Your task to perform on an android device: View the shopping cart on target.com. Add "acer nitro" to the cart on target.com, then select checkout. Image 0: 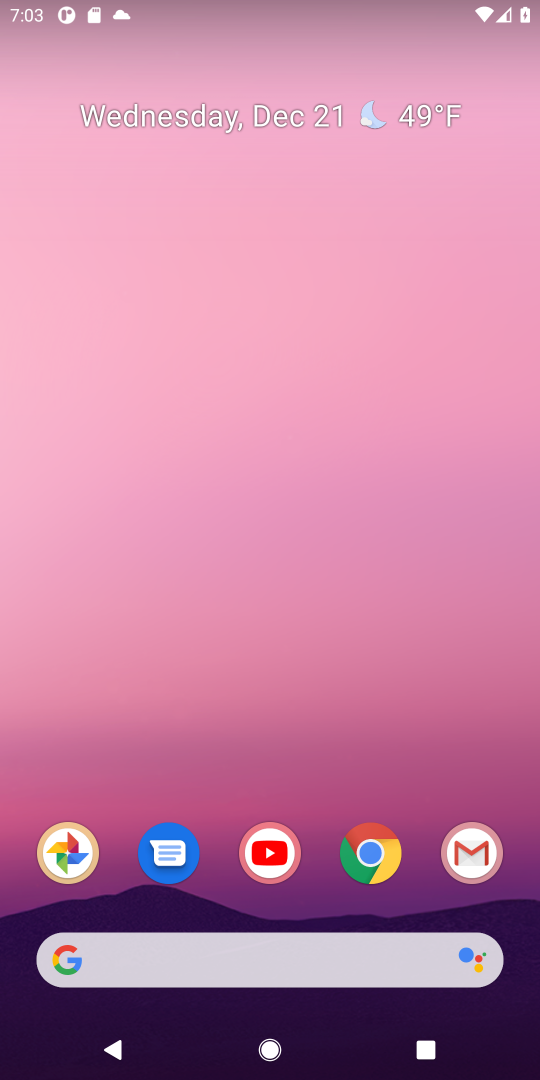
Step 0: click (378, 835)
Your task to perform on an android device: View the shopping cart on target.com. Add "acer nitro" to the cart on target.com, then select checkout. Image 1: 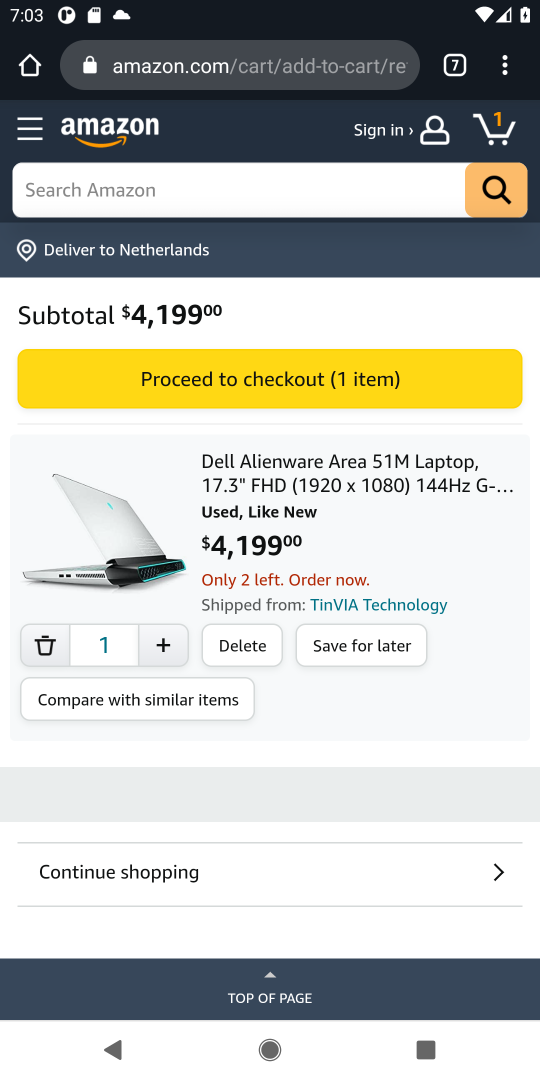
Step 1: click (458, 55)
Your task to perform on an android device: View the shopping cart on target.com. Add "acer nitro" to the cart on target.com, then select checkout. Image 2: 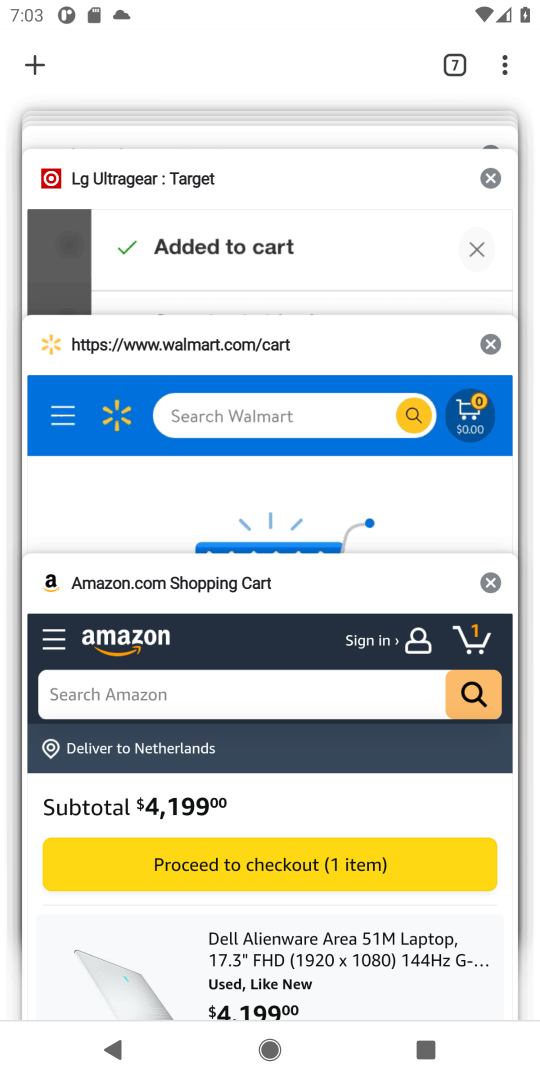
Step 2: click (354, 221)
Your task to perform on an android device: View the shopping cart on target.com. Add "acer nitro" to the cart on target.com, then select checkout. Image 3: 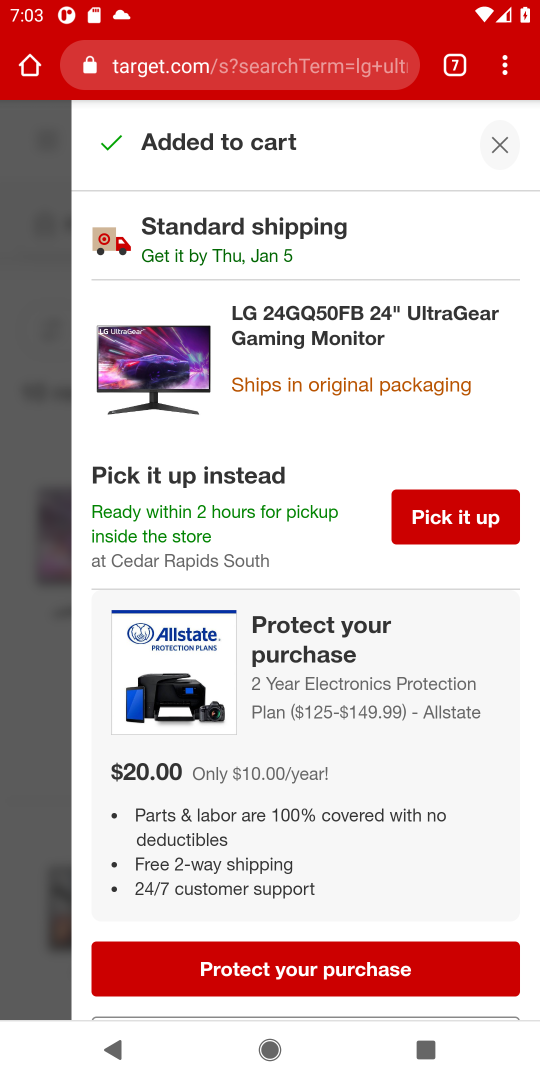
Step 3: click (501, 150)
Your task to perform on an android device: View the shopping cart on target.com. Add "acer nitro" to the cart on target.com, then select checkout. Image 4: 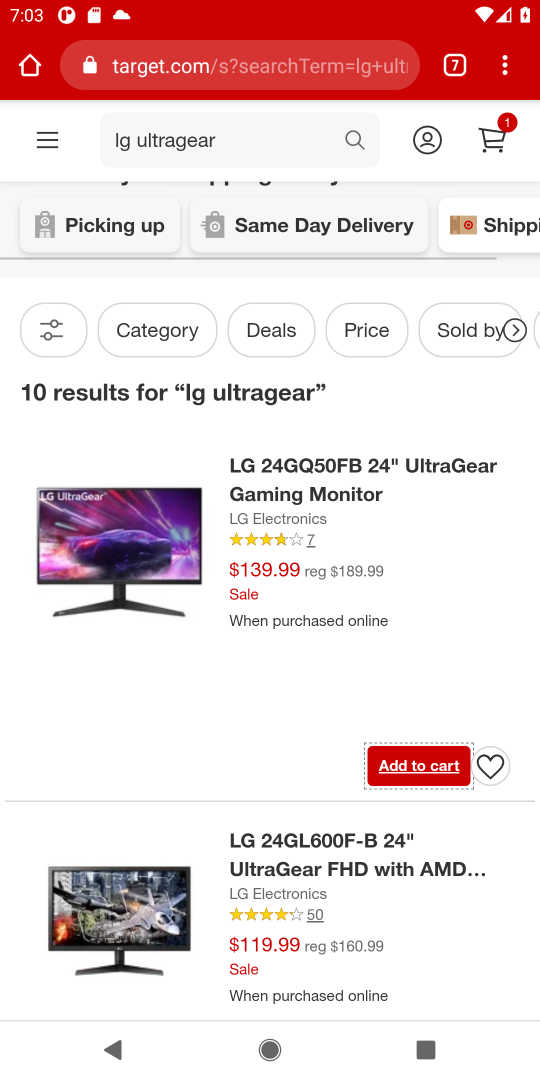
Step 4: click (217, 144)
Your task to perform on an android device: View the shopping cart on target.com. Add "acer nitro" to the cart on target.com, then select checkout. Image 5: 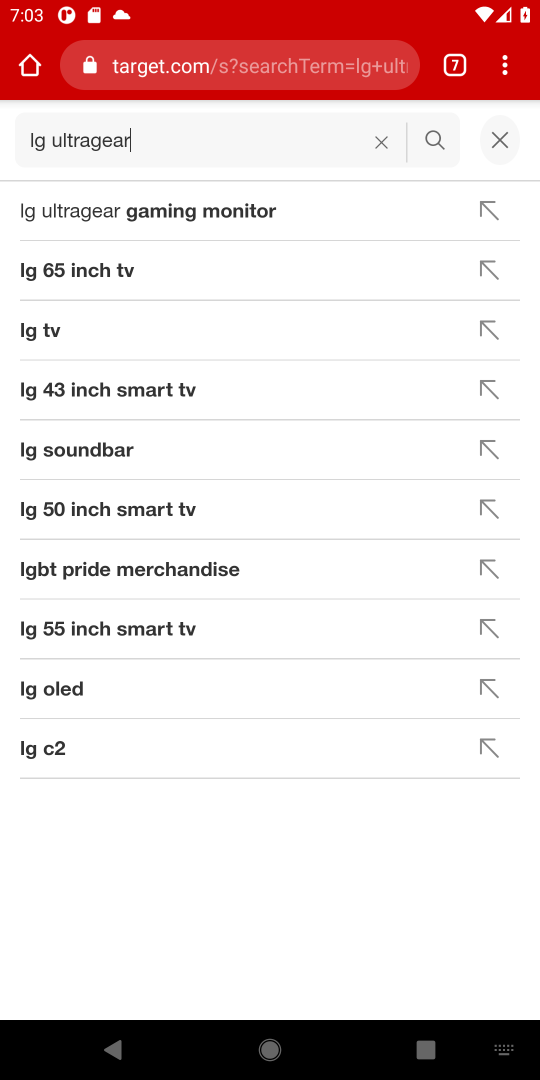
Step 5: click (387, 142)
Your task to perform on an android device: View the shopping cart on target.com. Add "acer nitro" to the cart on target.com, then select checkout. Image 6: 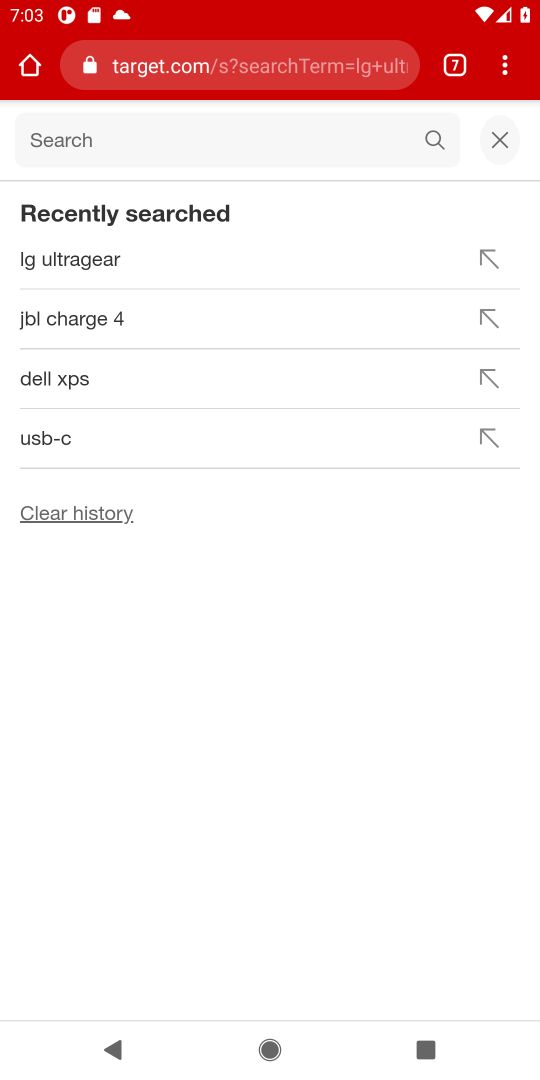
Step 6: type "acer nitro"
Your task to perform on an android device: View the shopping cart on target.com. Add "acer nitro" to the cart on target.com, then select checkout. Image 7: 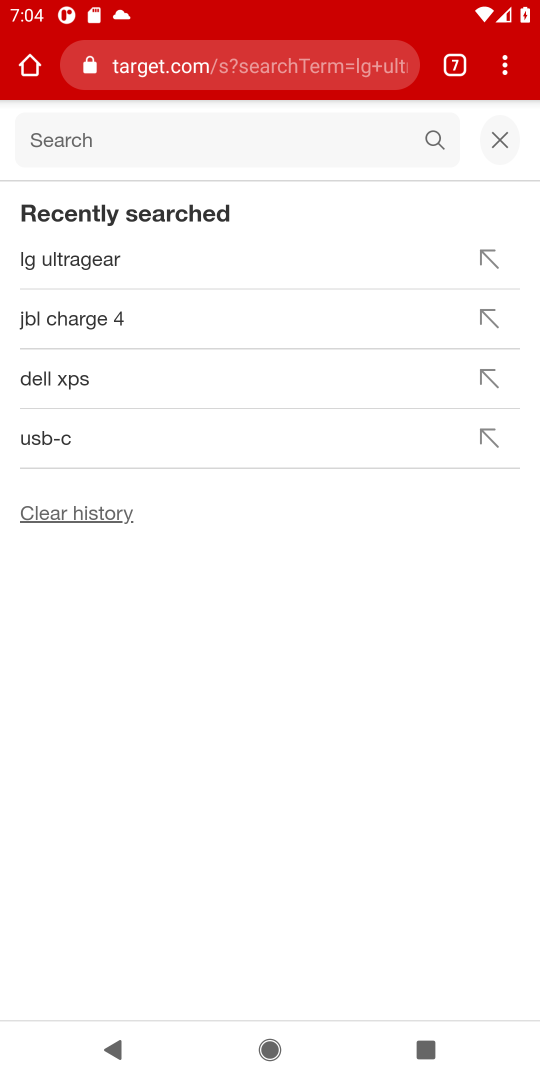
Step 7: click (93, 138)
Your task to perform on an android device: View the shopping cart on target.com. Add "acer nitro" to the cart on target.com, then select checkout. Image 8: 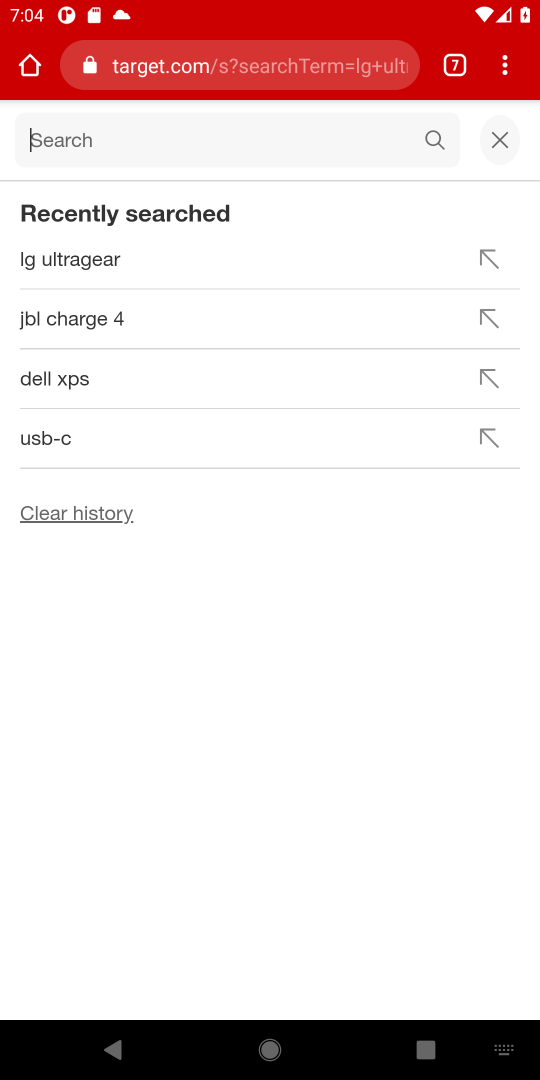
Step 8: type "acer nitro"
Your task to perform on an android device: View the shopping cart on target.com. Add "acer nitro" to the cart on target.com, then select checkout. Image 9: 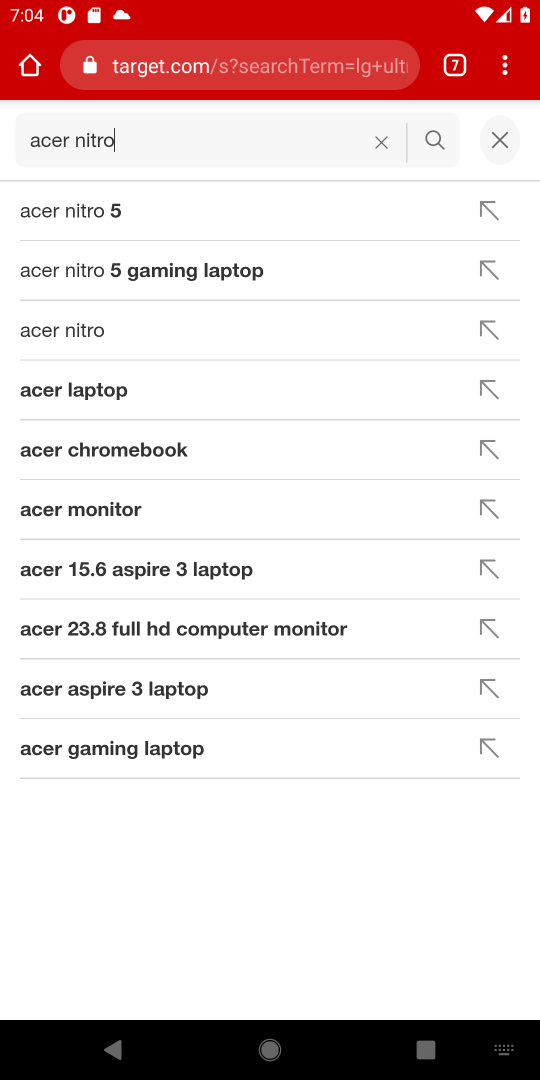
Step 9: click (435, 141)
Your task to perform on an android device: View the shopping cart on target.com. Add "acer nitro" to the cart on target.com, then select checkout. Image 10: 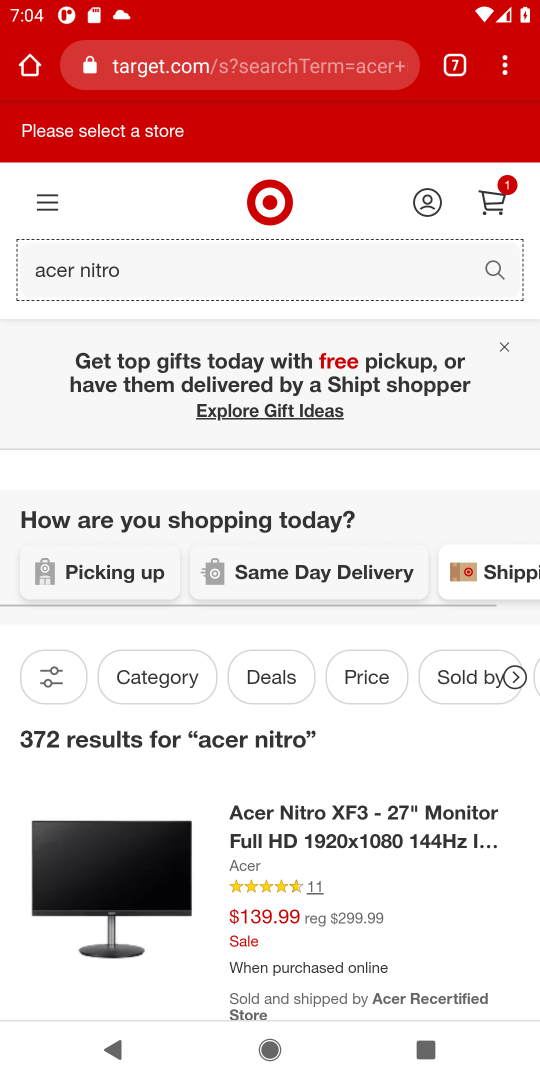
Step 10: drag from (380, 868) to (410, 528)
Your task to perform on an android device: View the shopping cart on target.com. Add "acer nitro" to the cart on target.com, then select checkout. Image 11: 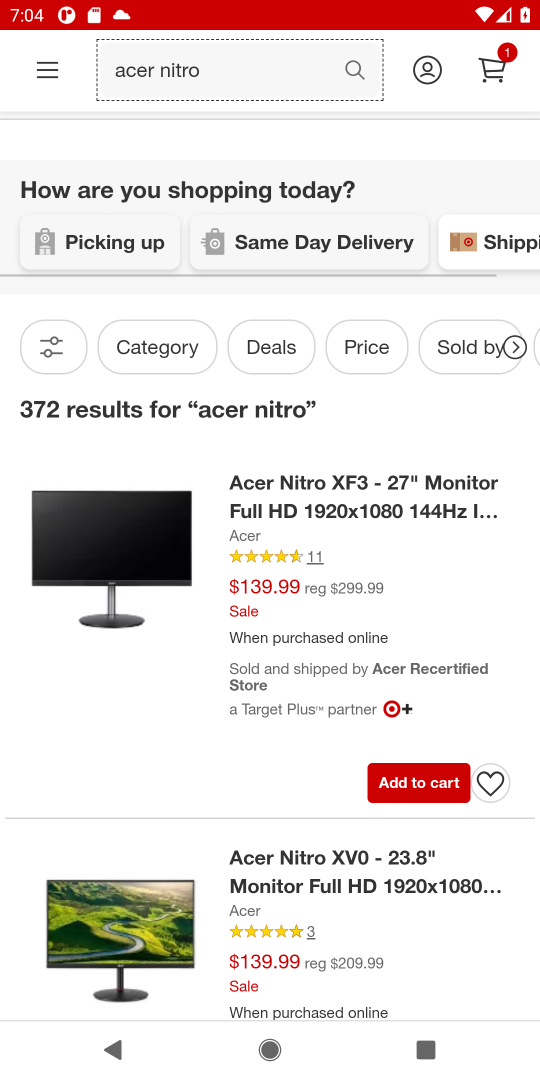
Step 11: click (408, 776)
Your task to perform on an android device: View the shopping cart on target.com. Add "acer nitro" to the cart on target.com, then select checkout. Image 12: 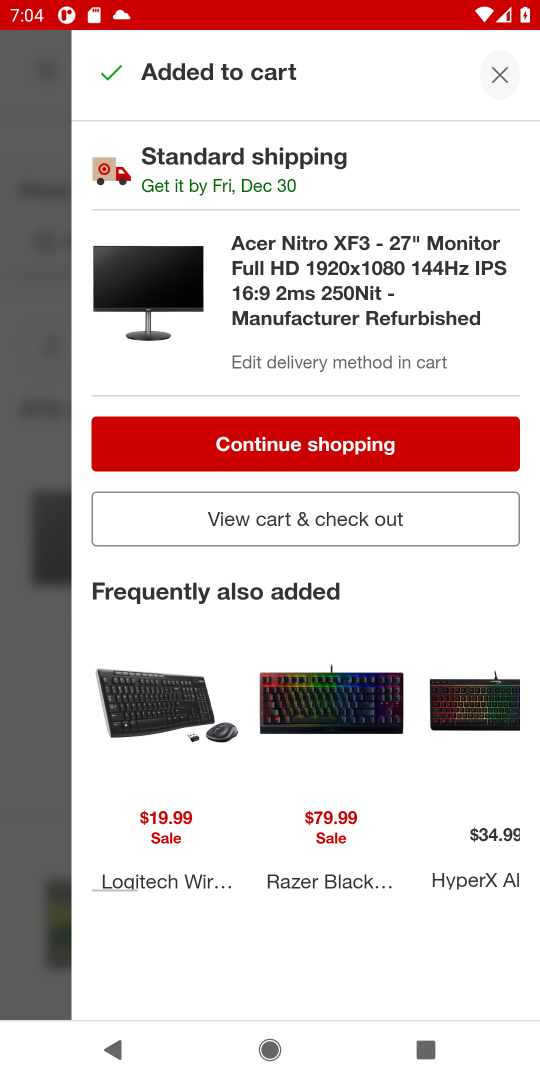
Step 12: task complete